Your task to perform on an android device: move a message to another label in the gmail app Image 0: 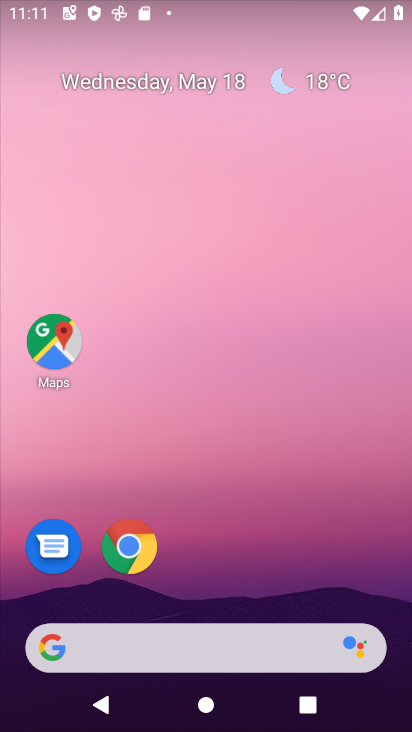
Step 0: drag from (226, 718) to (234, 151)
Your task to perform on an android device: move a message to another label in the gmail app Image 1: 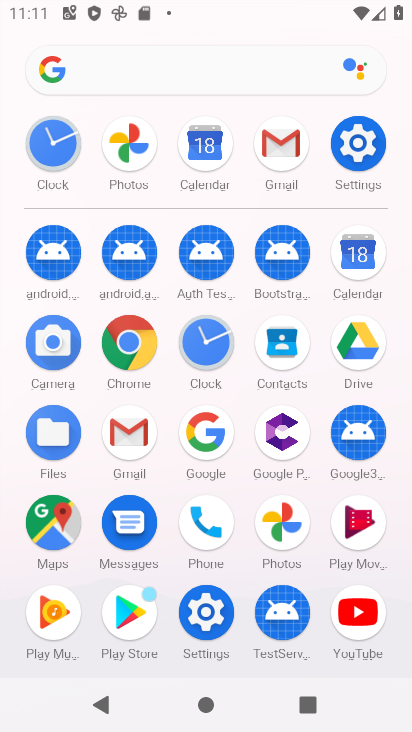
Step 1: click (121, 429)
Your task to perform on an android device: move a message to another label in the gmail app Image 2: 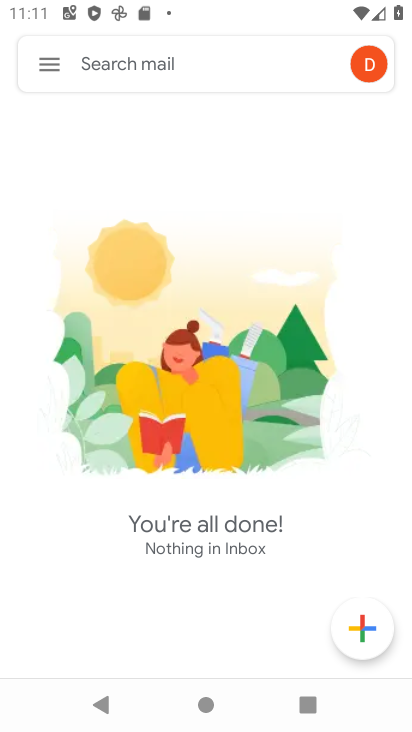
Step 2: task complete